Your task to perform on an android device: turn pop-ups on in chrome Image 0: 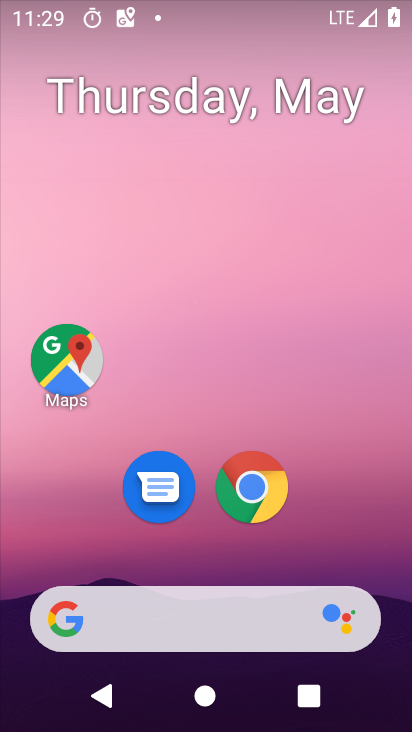
Step 0: drag from (251, 498) to (294, 71)
Your task to perform on an android device: turn pop-ups on in chrome Image 1: 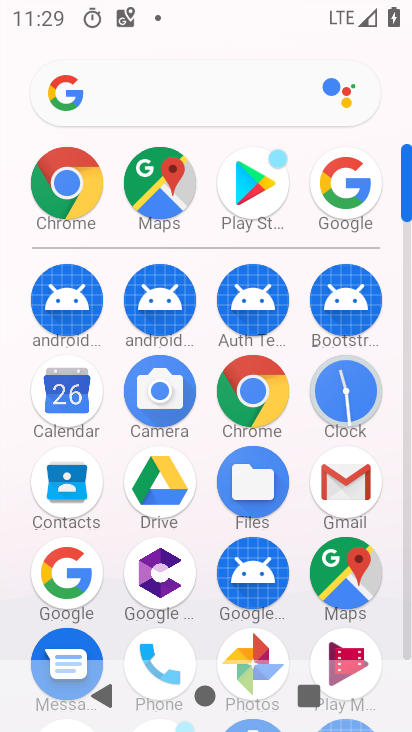
Step 1: click (277, 391)
Your task to perform on an android device: turn pop-ups on in chrome Image 2: 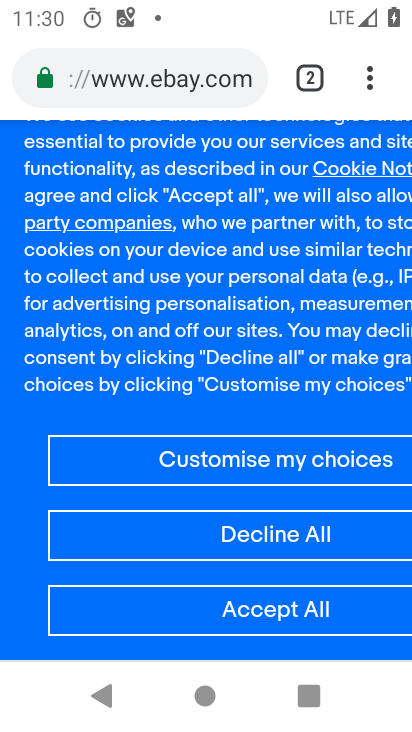
Step 2: click (363, 75)
Your task to perform on an android device: turn pop-ups on in chrome Image 3: 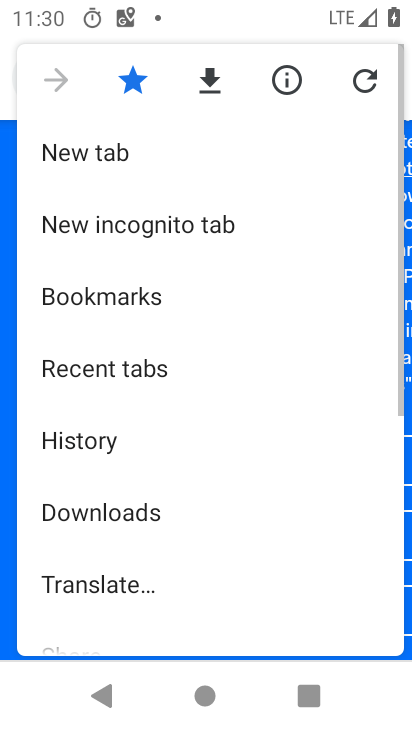
Step 3: drag from (195, 508) to (200, 132)
Your task to perform on an android device: turn pop-ups on in chrome Image 4: 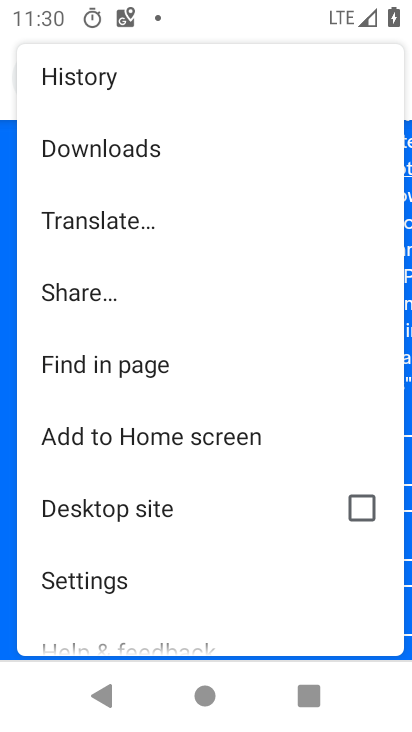
Step 4: click (123, 588)
Your task to perform on an android device: turn pop-ups on in chrome Image 5: 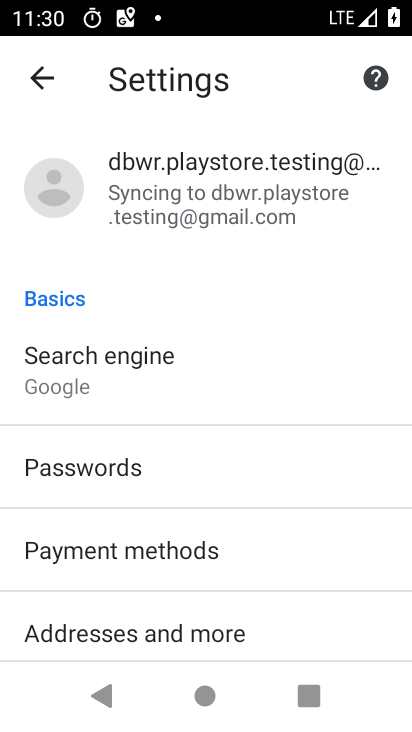
Step 5: drag from (239, 541) to (296, 61)
Your task to perform on an android device: turn pop-ups on in chrome Image 6: 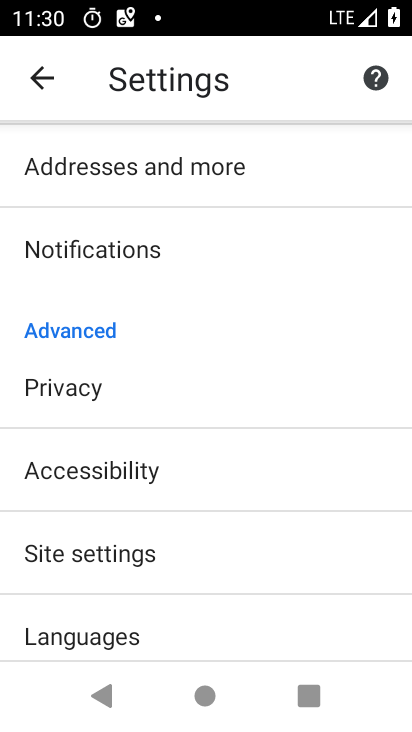
Step 6: click (135, 553)
Your task to perform on an android device: turn pop-ups on in chrome Image 7: 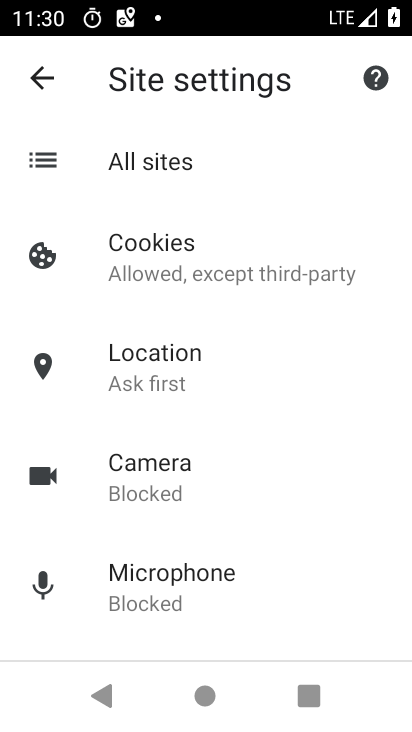
Step 7: drag from (174, 528) to (237, 96)
Your task to perform on an android device: turn pop-ups on in chrome Image 8: 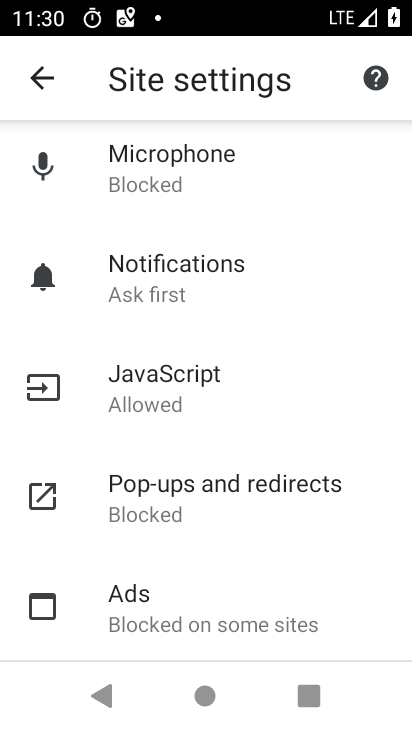
Step 8: click (192, 503)
Your task to perform on an android device: turn pop-ups on in chrome Image 9: 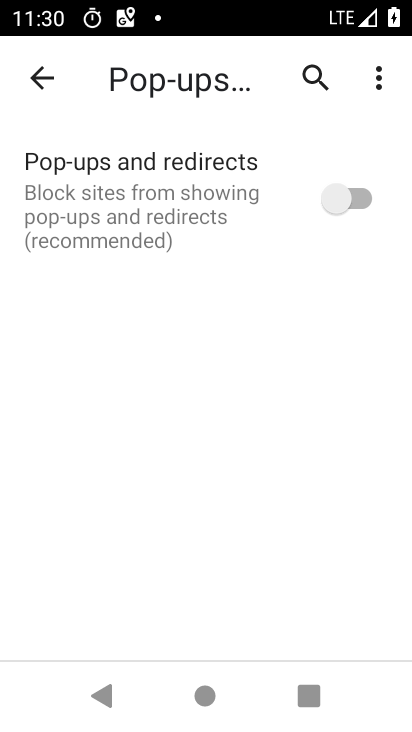
Step 9: click (325, 207)
Your task to perform on an android device: turn pop-ups on in chrome Image 10: 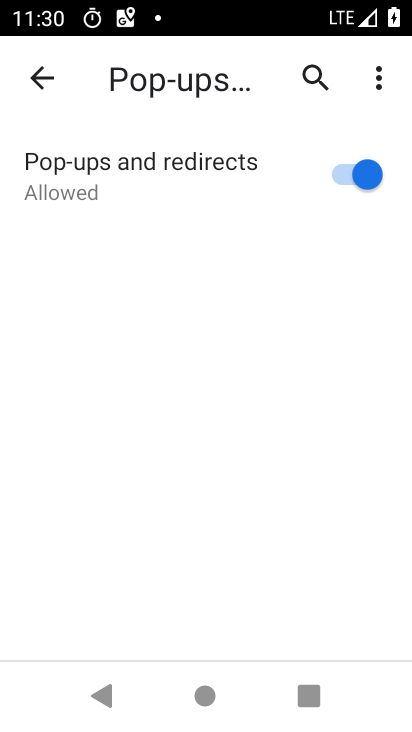
Step 10: task complete